Your task to perform on an android device: open sync settings in chrome Image 0: 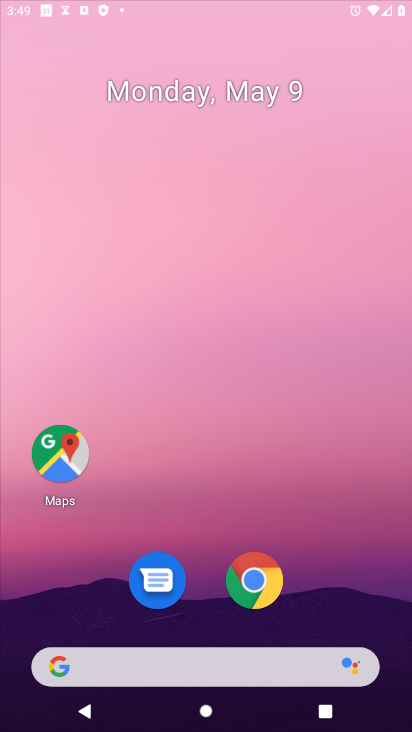
Step 0: click (191, 68)
Your task to perform on an android device: open sync settings in chrome Image 1: 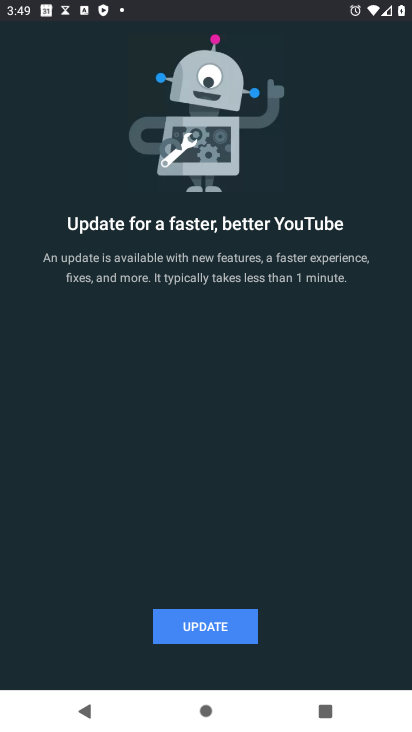
Step 1: press home button
Your task to perform on an android device: open sync settings in chrome Image 2: 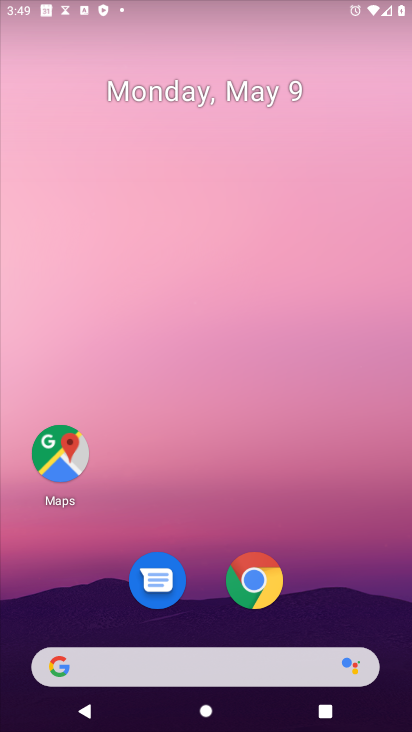
Step 2: drag from (312, 436) to (229, 78)
Your task to perform on an android device: open sync settings in chrome Image 3: 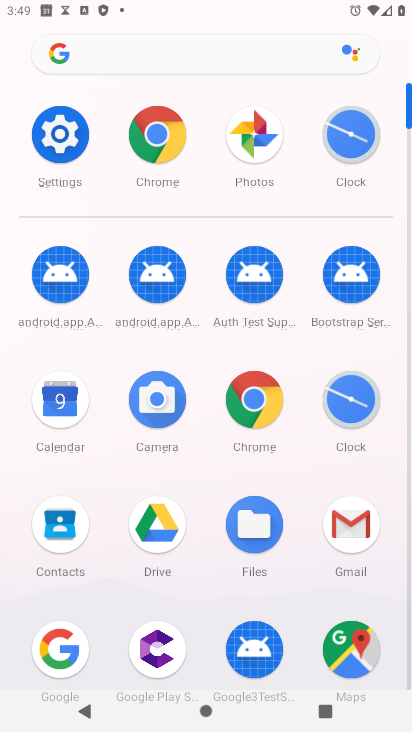
Step 3: click (268, 408)
Your task to perform on an android device: open sync settings in chrome Image 4: 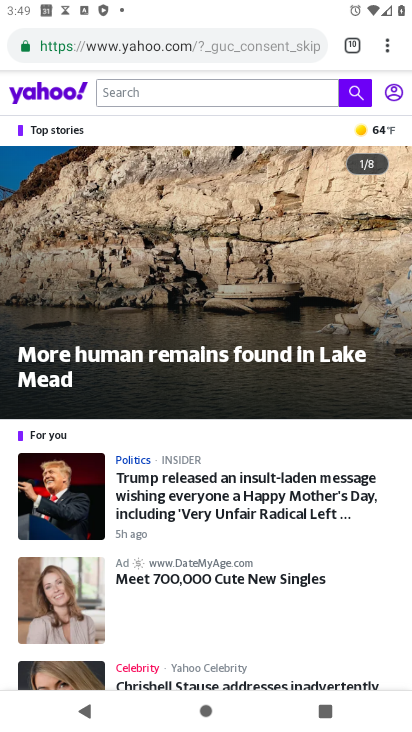
Step 4: click (379, 46)
Your task to perform on an android device: open sync settings in chrome Image 5: 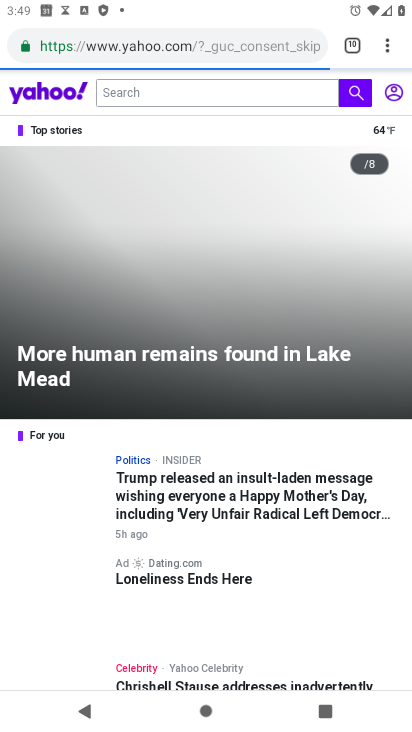
Step 5: click (384, 43)
Your task to perform on an android device: open sync settings in chrome Image 6: 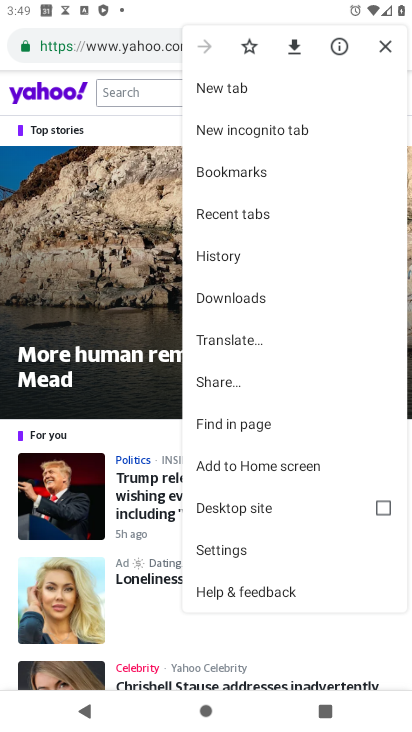
Step 6: click (240, 551)
Your task to perform on an android device: open sync settings in chrome Image 7: 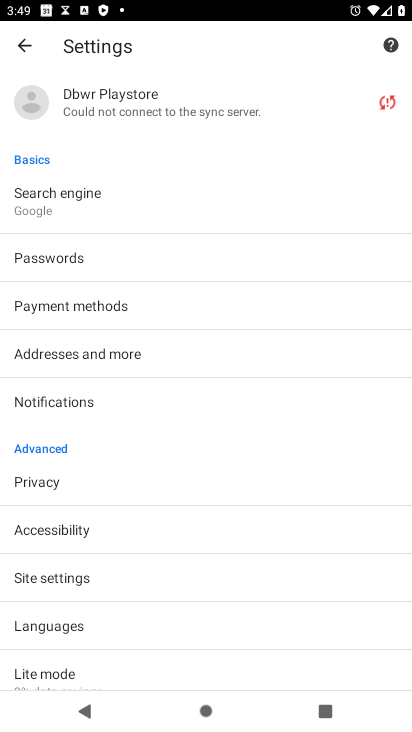
Step 7: click (117, 575)
Your task to perform on an android device: open sync settings in chrome Image 8: 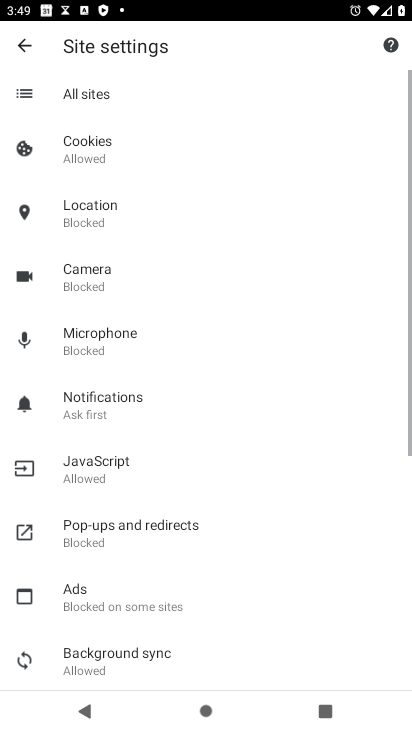
Step 8: click (159, 665)
Your task to perform on an android device: open sync settings in chrome Image 9: 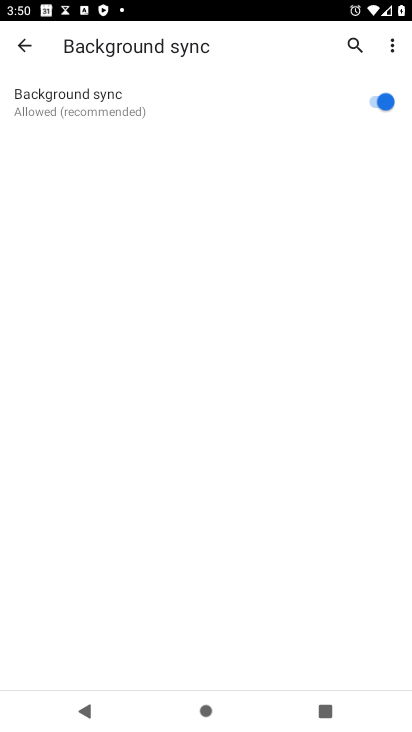
Step 9: task complete